Your task to perform on an android device: toggle translation in the chrome app Image 0: 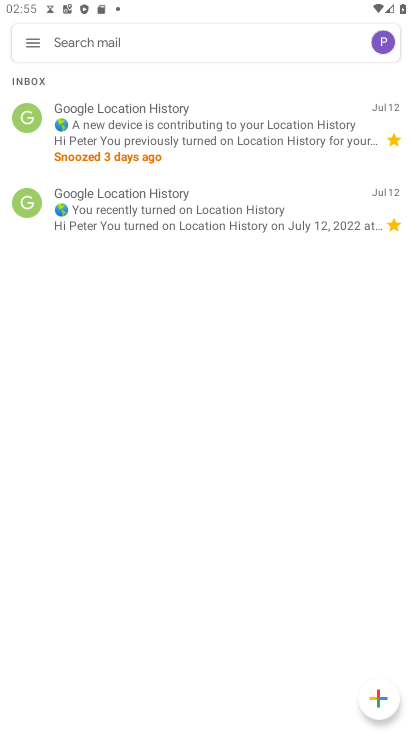
Step 0: press back button
Your task to perform on an android device: toggle translation in the chrome app Image 1: 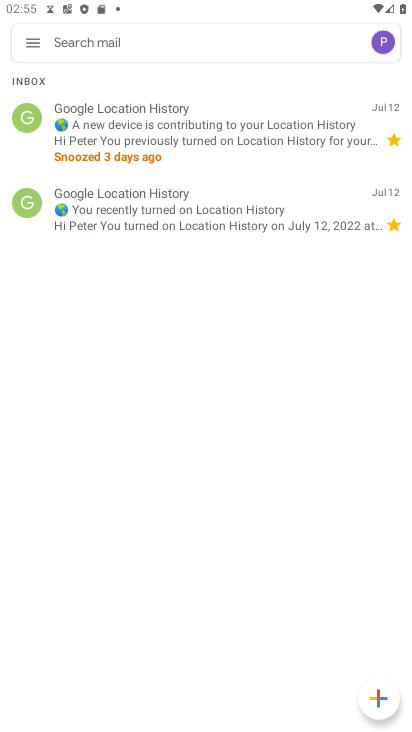
Step 1: press back button
Your task to perform on an android device: toggle translation in the chrome app Image 2: 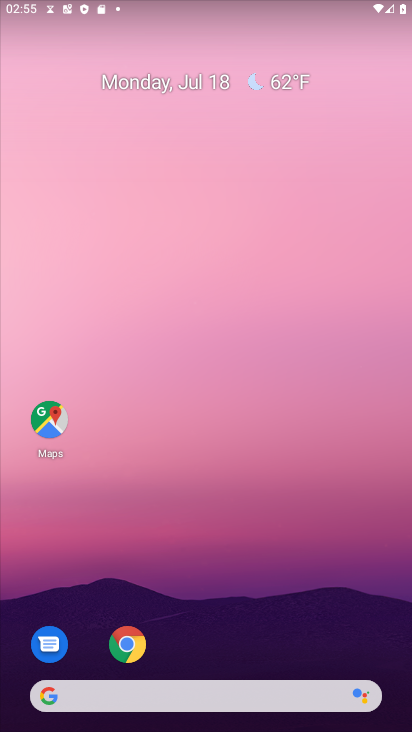
Step 2: drag from (214, 635) to (150, 43)
Your task to perform on an android device: toggle translation in the chrome app Image 3: 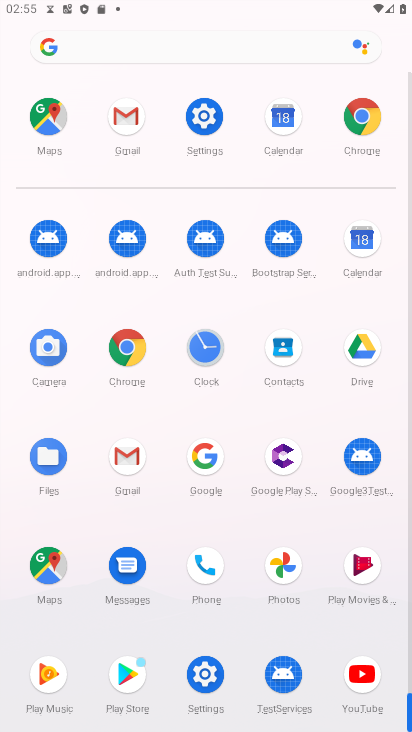
Step 3: click (376, 108)
Your task to perform on an android device: toggle translation in the chrome app Image 4: 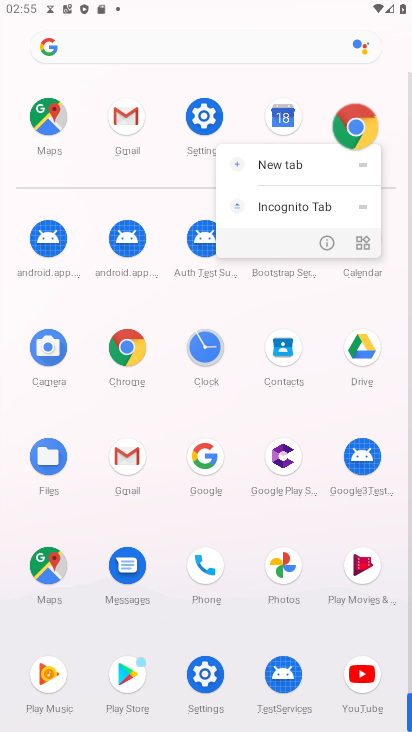
Step 4: click (364, 120)
Your task to perform on an android device: toggle translation in the chrome app Image 5: 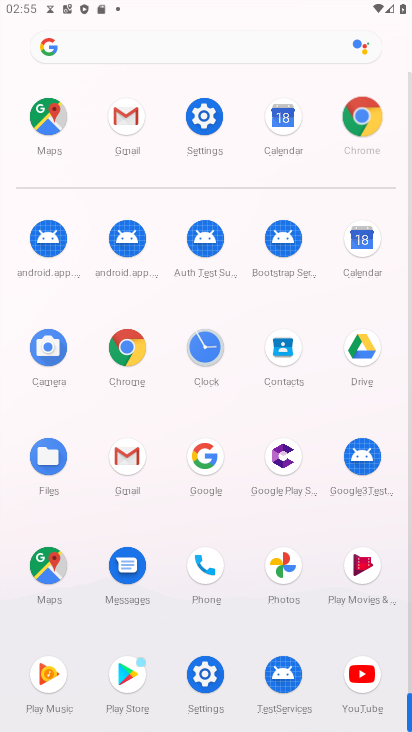
Step 5: click (365, 122)
Your task to perform on an android device: toggle translation in the chrome app Image 6: 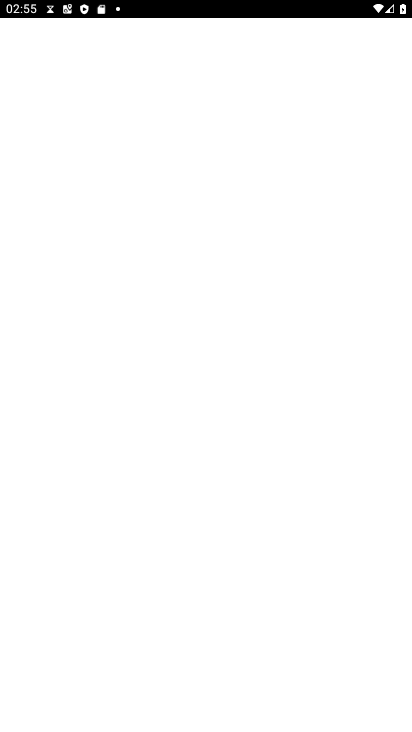
Step 6: click (361, 131)
Your task to perform on an android device: toggle translation in the chrome app Image 7: 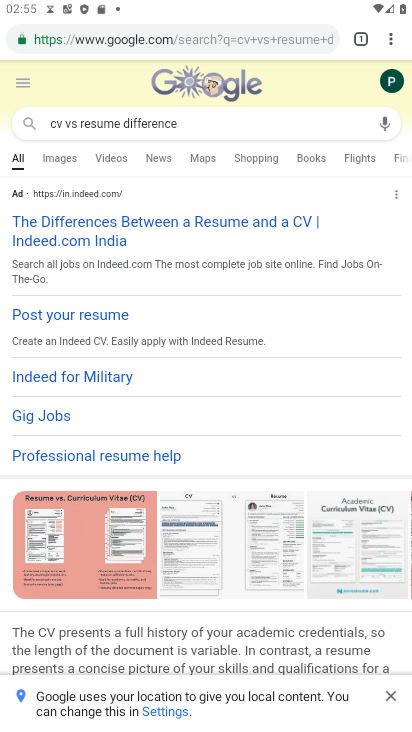
Step 7: drag from (390, 41) to (251, 440)
Your task to perform on an android device: toggle translation in the chrome app Image 8: 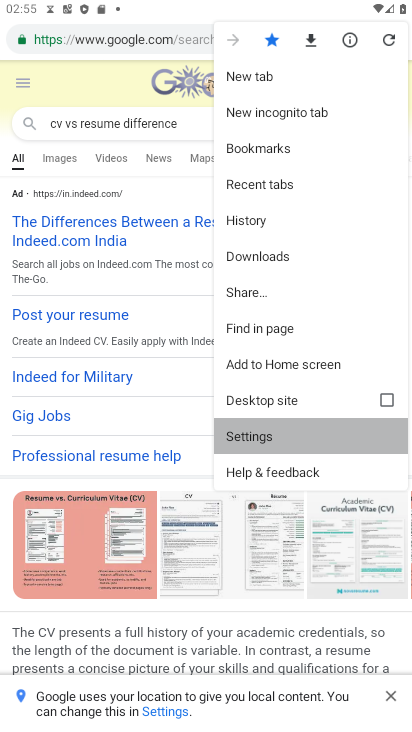
Step 8: click (248, 440)
Your task to perform on an android device: toggle translation in the chrome app Image 9: 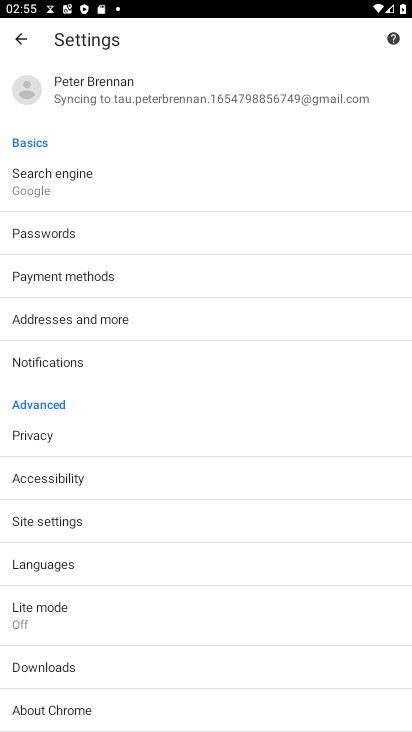
Step 9: click (34, 548)
Your task to perform on an android device: toggle translation in the chrome app Image 10: 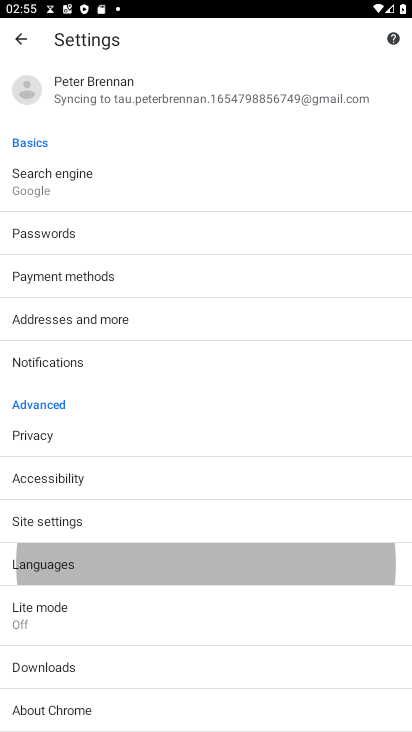
Step 10: click (41, 572)
Your task to perform on an android device: toggle translation in the chrome app Image 11: 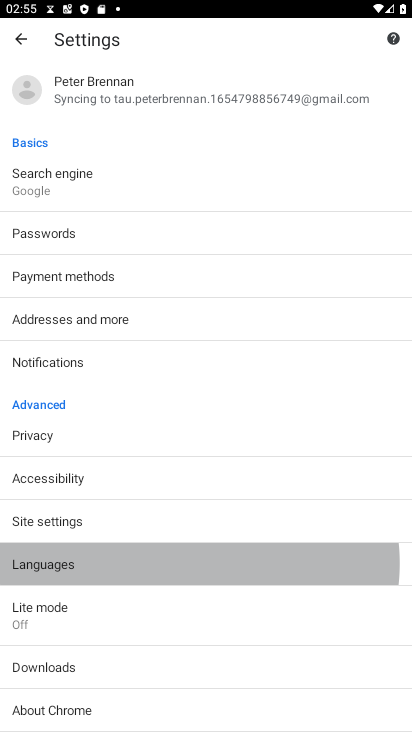
Step 11: click (42, 571)
Your task to perform on an android device: toggle translation in the chrome app Image 12: 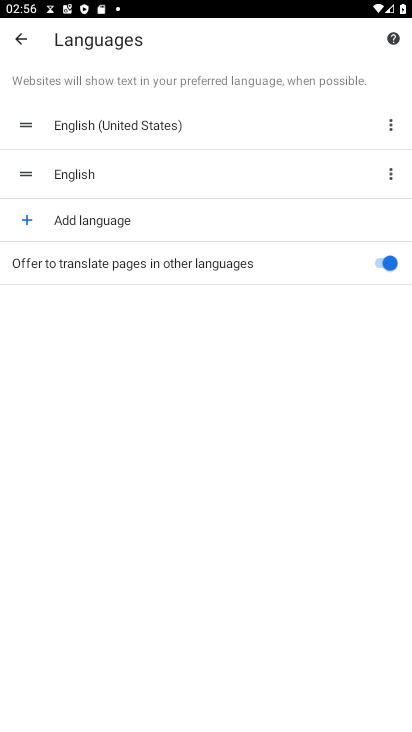
Step 12: click (384, 258)
Your task to perform on an android device: toggle translation in the chrome app Image 13: 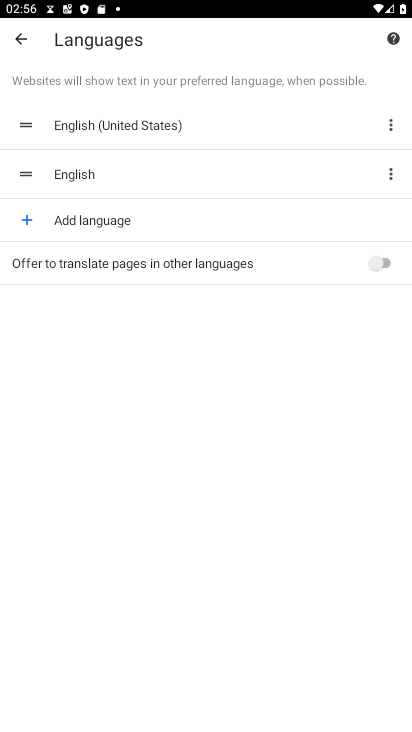
Step 13: task complete